Your task to perform on an android device: Open CNN.com Image 0: 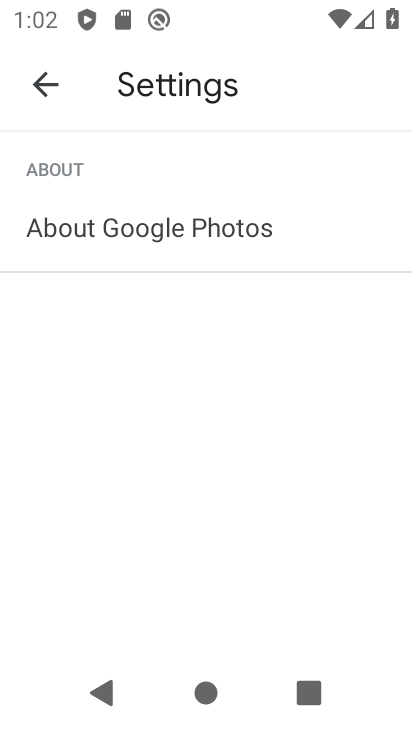
Step 0: press home button
Your task to perform on an android device: Open CNN.com Image 1: 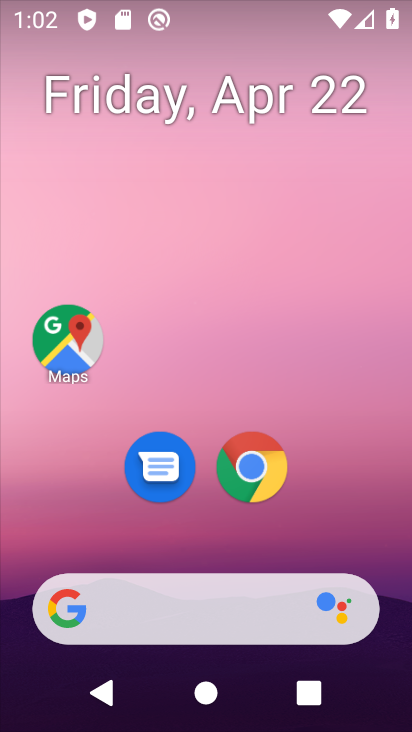
Step 1: click (250, 461)
Your task to perform on an android device: Open CNN.com Image 2: 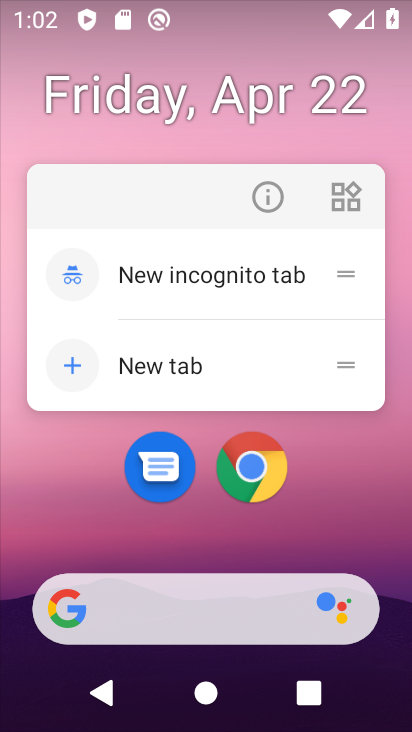
Step 2: click (233, 543)
Your task to perform on an android device: Open CNN.com Image 3: 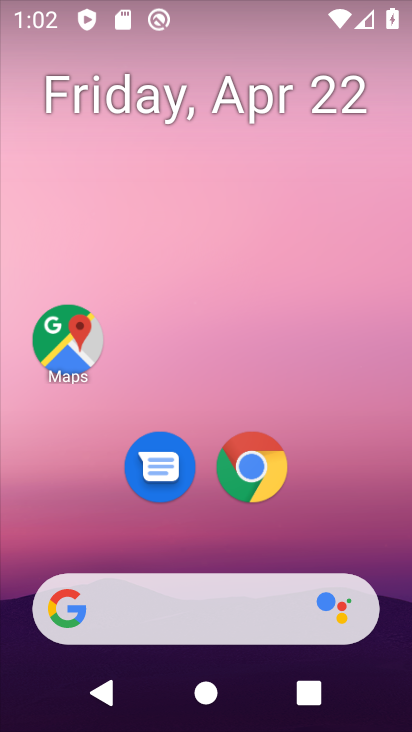
Step 3: drag from (225, 547) to (274, 58)
Your task to perform on an android device: Open CNN.com Image 4: 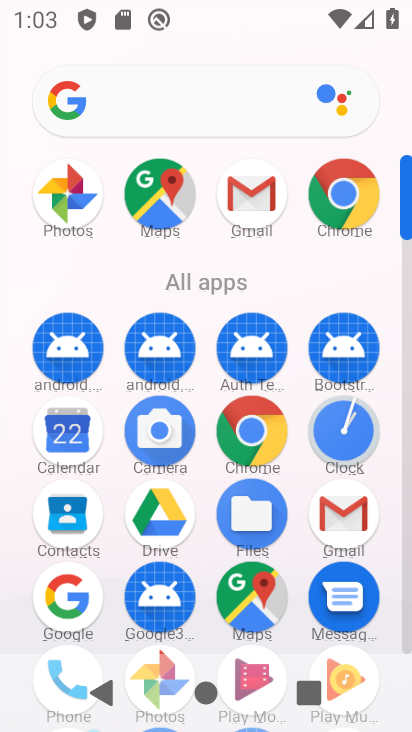
Step 4: click (246, 424)
Your task to perform on an android device: Open CNN.com Image 5: 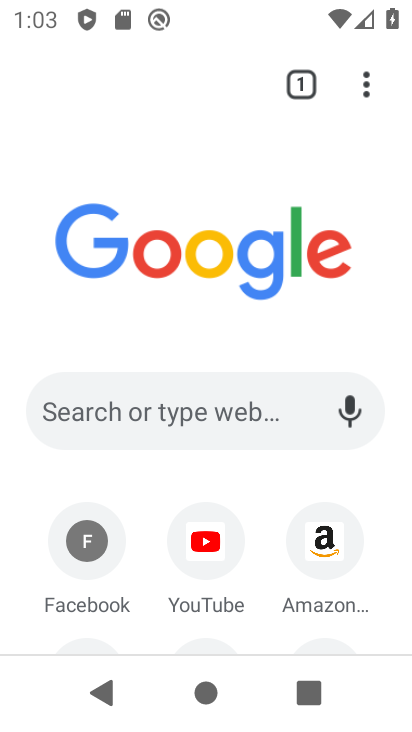
Step 5: click (196, 417)
Your task to perform on an android device: Open CNN.com Image 6: 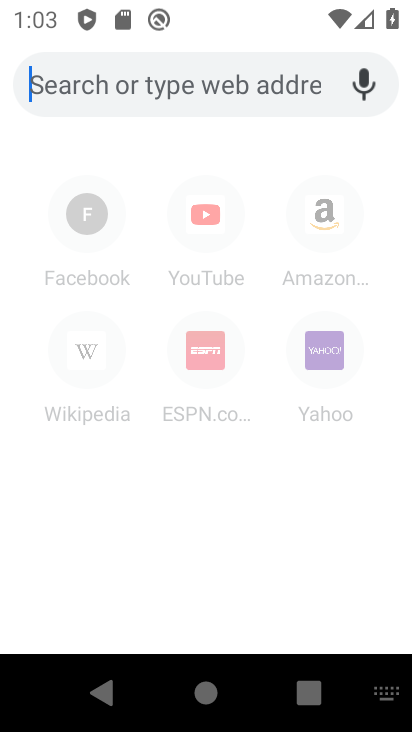
Step 6: type "cnn.com"
Your task to perform on an android device: Open CNN.com Image 7: 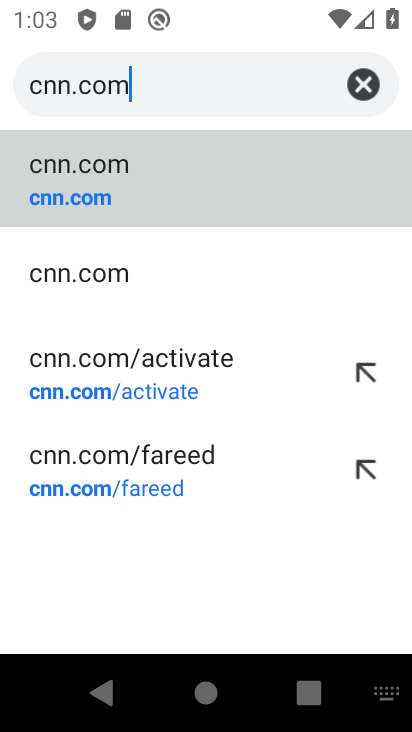
Step 7: click (137, 191)
Your task to perform on an android device: Open CNN.com Image 8: 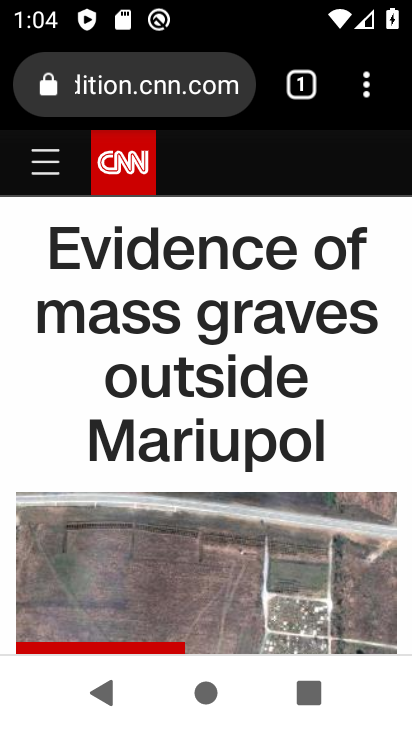
Step 8: task complete